Your task to perform on an android device: toggle sleep mode Image 0: 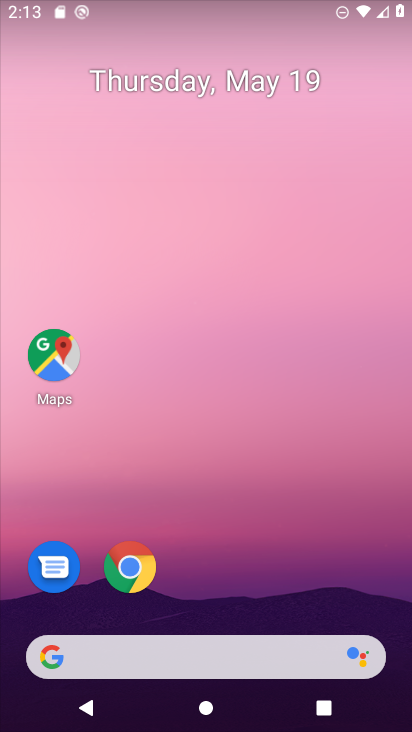
Step 0: drag from (279, 510) to (253, 108)
Your task to perform on an android device: toggle sleep mode Image 1: 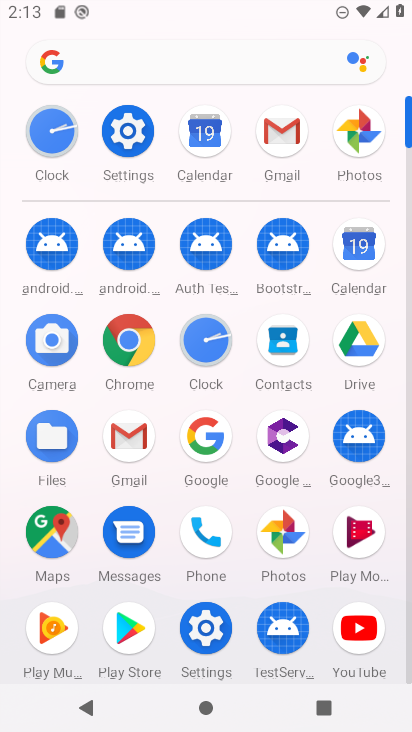
Step 1: click (136, 137)
Your task to perform on an android device: toggle sleep mode Image 2: 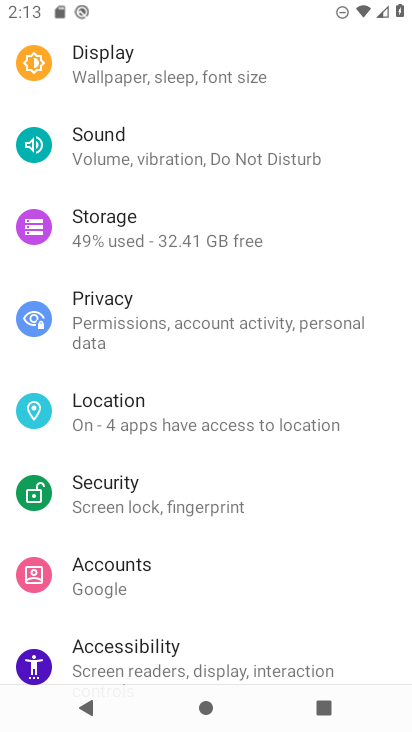
Step 2: click (200, 75)
Your task to perform on an android device: toggle sleep mode Image 3: 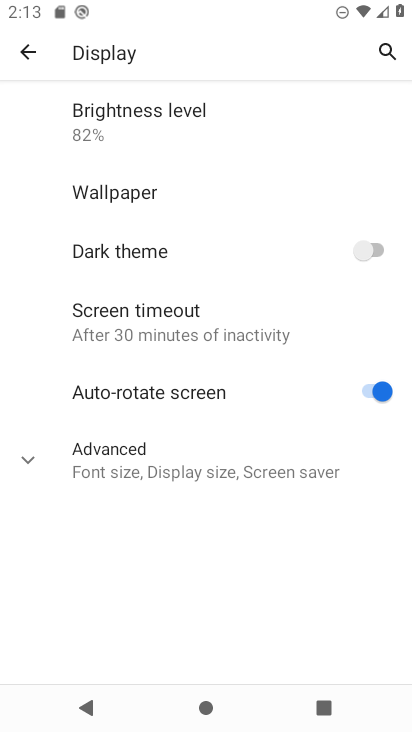
Step 3: click (27, 459)
Your task to perform on an android device: toggle sleep mode Image 4: 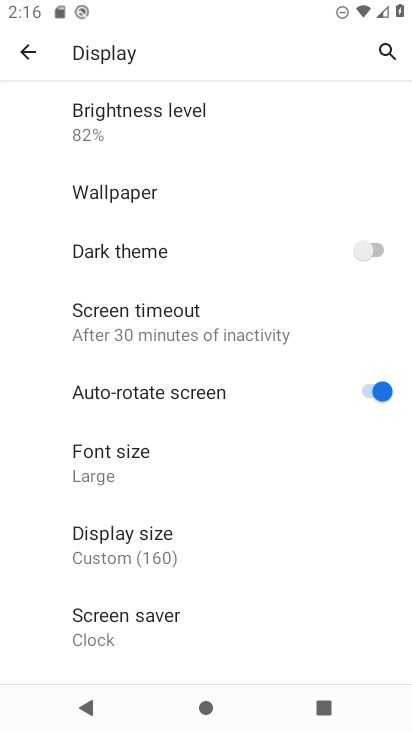
Step 4: task complete